Your task to perform on an android device: delete a single message in the gmail app Image 0: 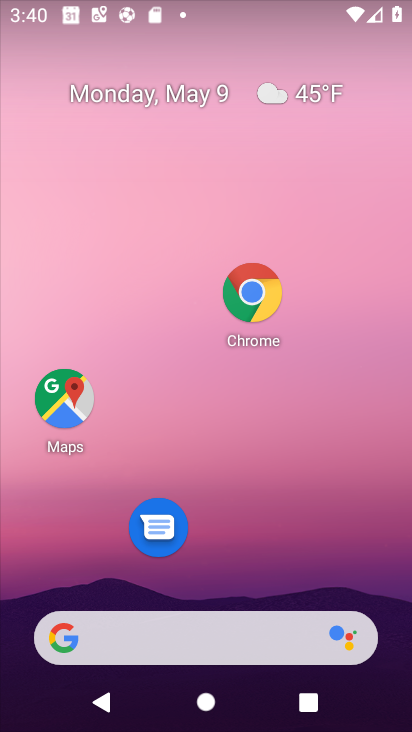
Step 0: drag from (289, 539) to (322, 72)
Your task to perform on an android device: delete a single message in the gmail app Image 1: 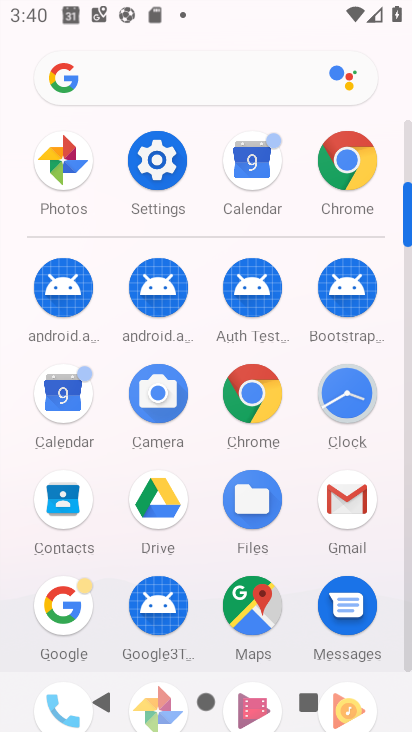
Step 1: click (344, 511)
Your task to perform on an android device: delete a single message in the gmail app Image 2: 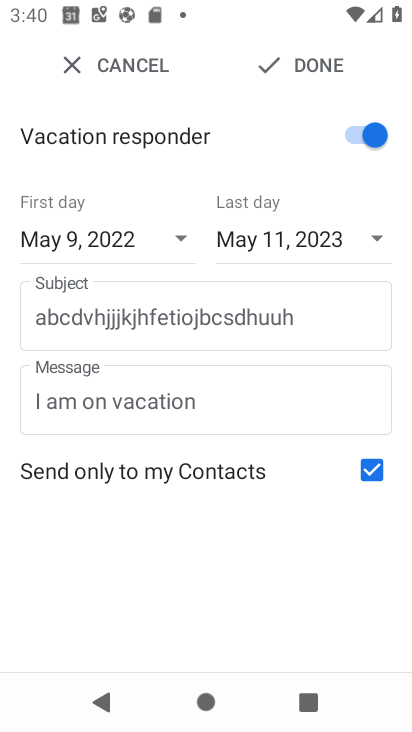
Step 2: click (82, 68)
Your task to perform on an android device: delete a single message in the gmail app Image 3: 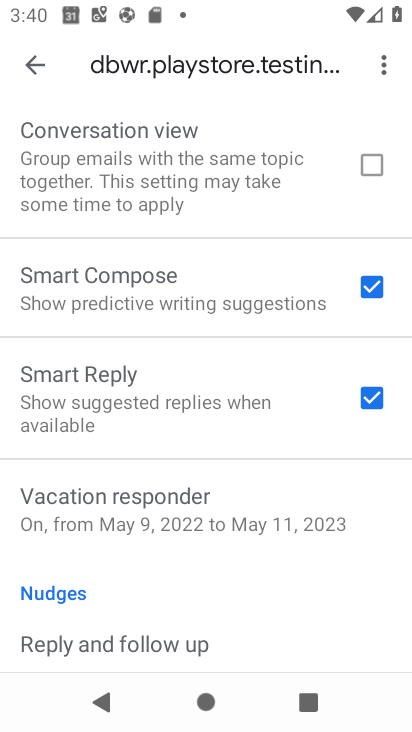
Step 3: click (37, 77)
Your task to perform on an android device: delete a single message in the gmail app Image 4: 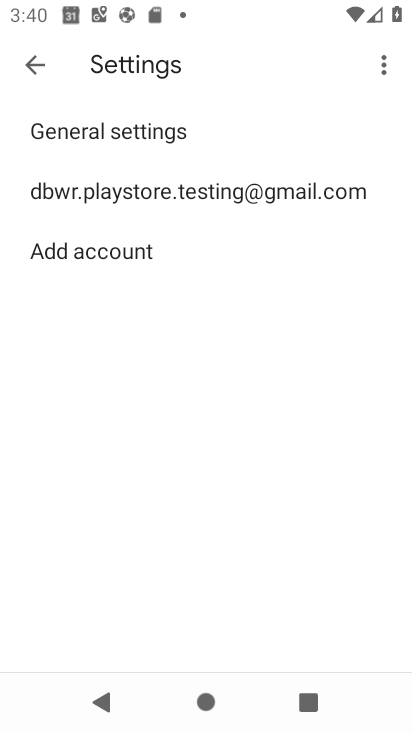
Step 4: click (36, 75)
Your task to perform on an android device: delete a single message in the gmail app Image 5: 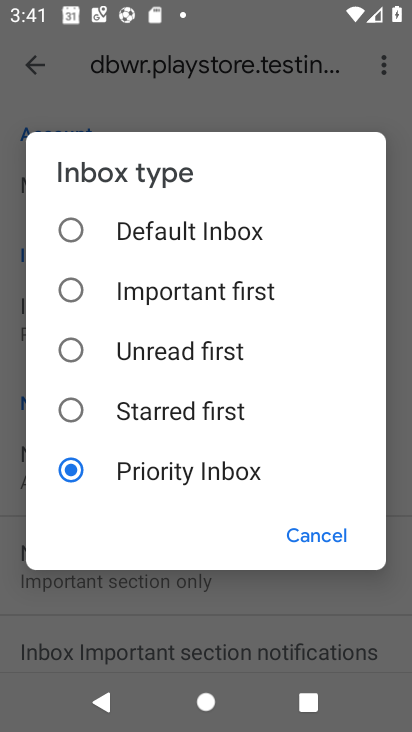
Step 5: click (245, 88)
Your task to perform on an android device: delete a single message in the gmail app Image 6: 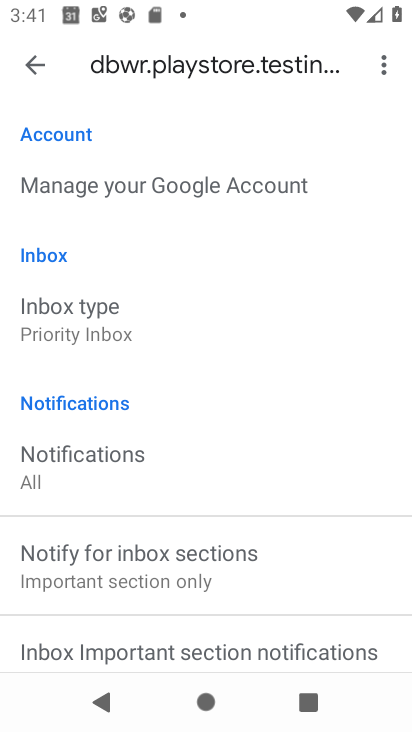
Step 6: click (33, 71)
Your task to perform on an android device: delete a single message in the gmail app Image 7: 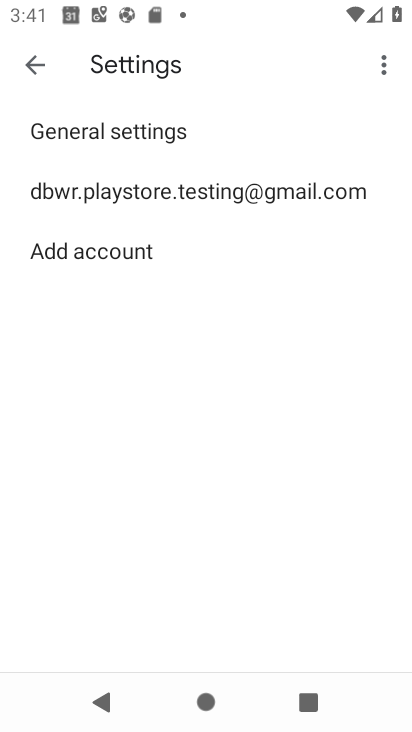
Step 7: click (33, 71)
Your task to perform on an android device: delete a single message in the gmail app Image 8: 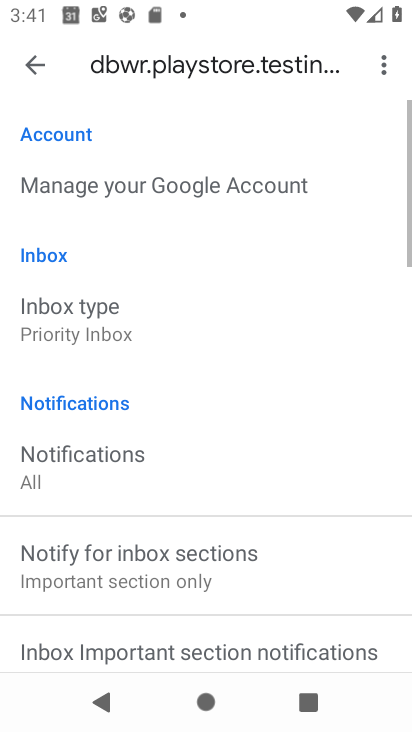
Step 8: click (33, 71)
Your task to perform on an android device: delete a single message in the gmail app Image 9: 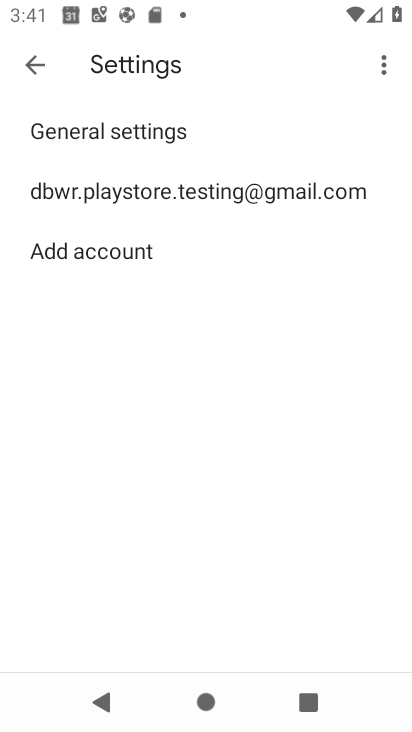
Step 9: click (33, 71)
Your task to perform on an android device: delete a single message in the gmail app Image 10: 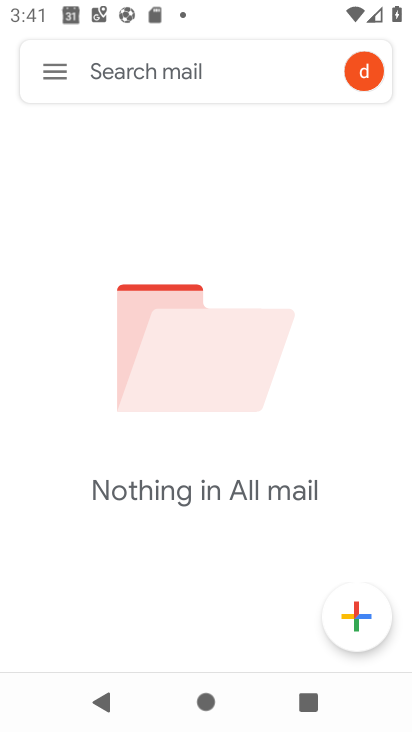
Step 10: click (52, 72)
Your task to perform on an android device: delete a single message in the gmail app Image 11: 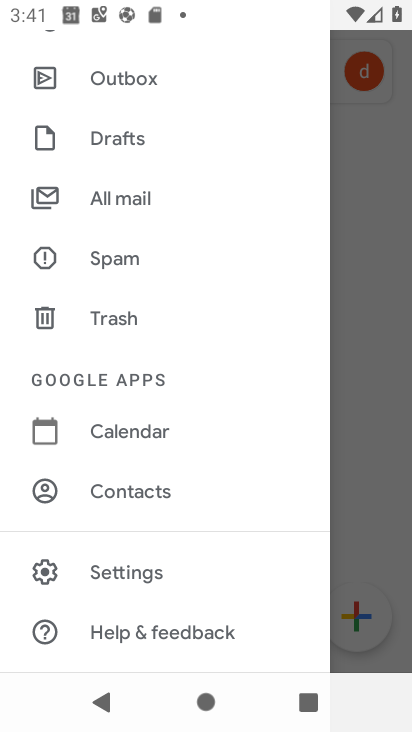
Step 11: click (134, 200)
Your task to perform on an android device: delete a single message in the gmail app Image 12: 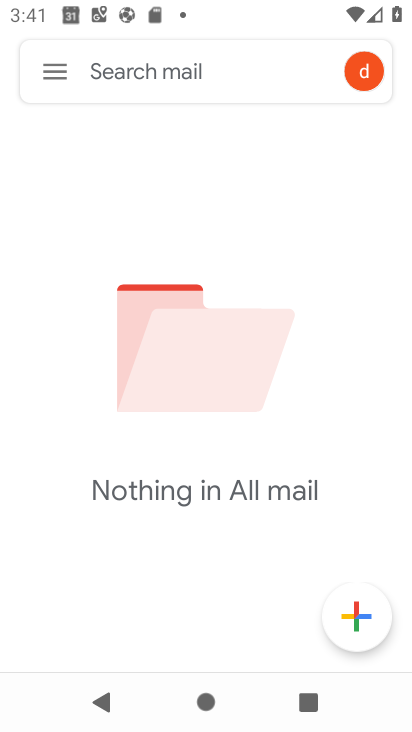
Step 12: task complete